Your task to perform on an android device: Open the map Image 0: 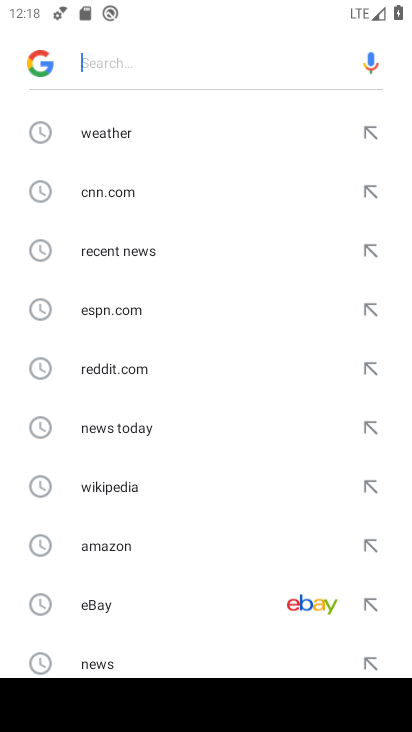
Step 0: press home button
Your task to perform on an android device: Open the map Image 1: 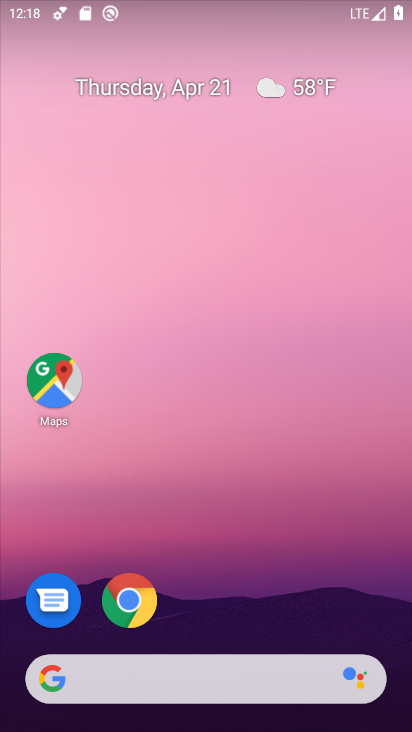
Step 1: click (54, 381)
Your task to perform on an android device: Open the map Image 2: 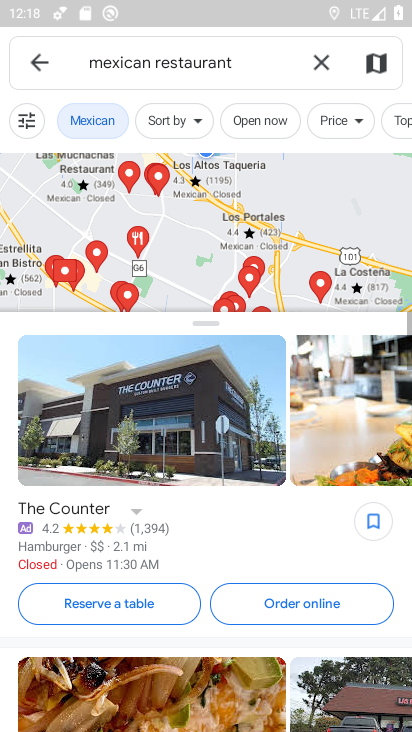
Step 2: task complete